Your task to perform on an android device: open app "Google Home" Image 0: 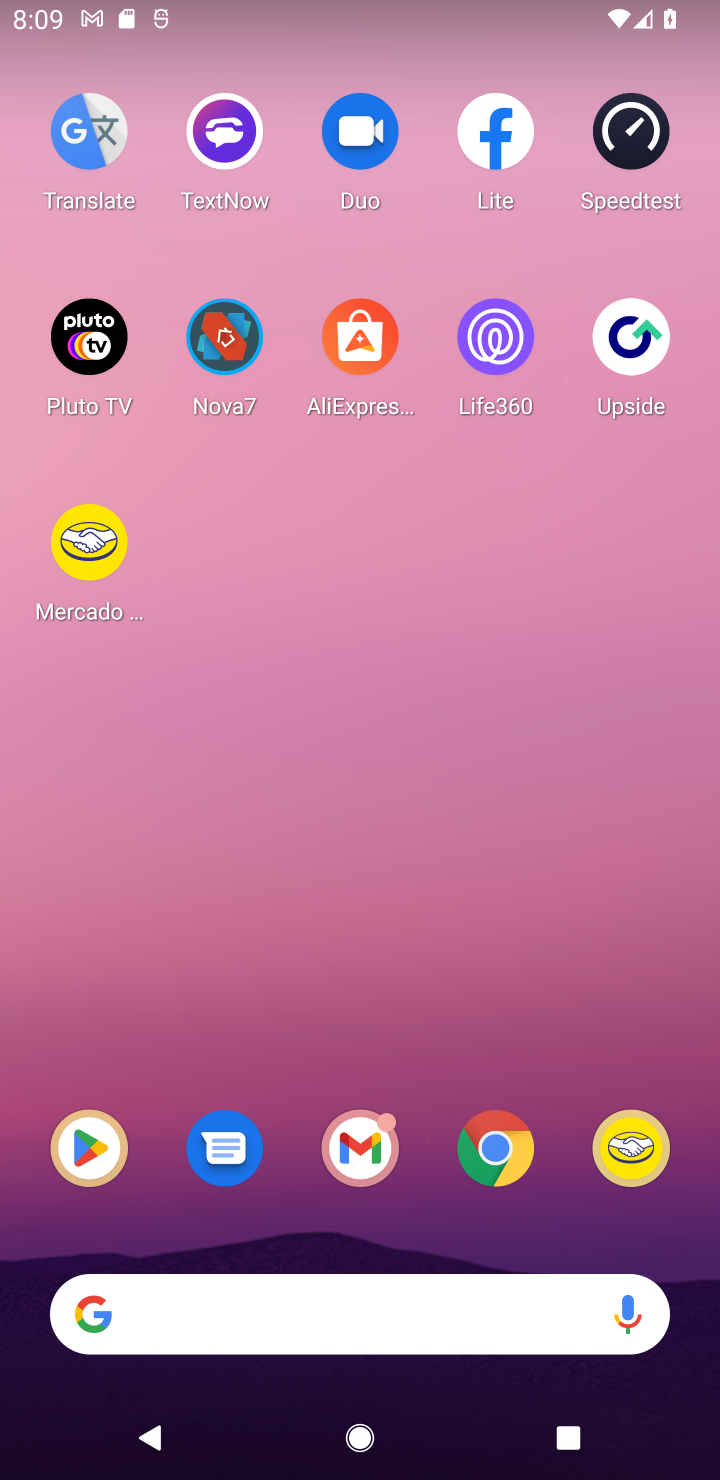
Step 0: drag from (445, 765) to (308, 128)
Your task to perform on an android device: open app "Google Home" Image 1: 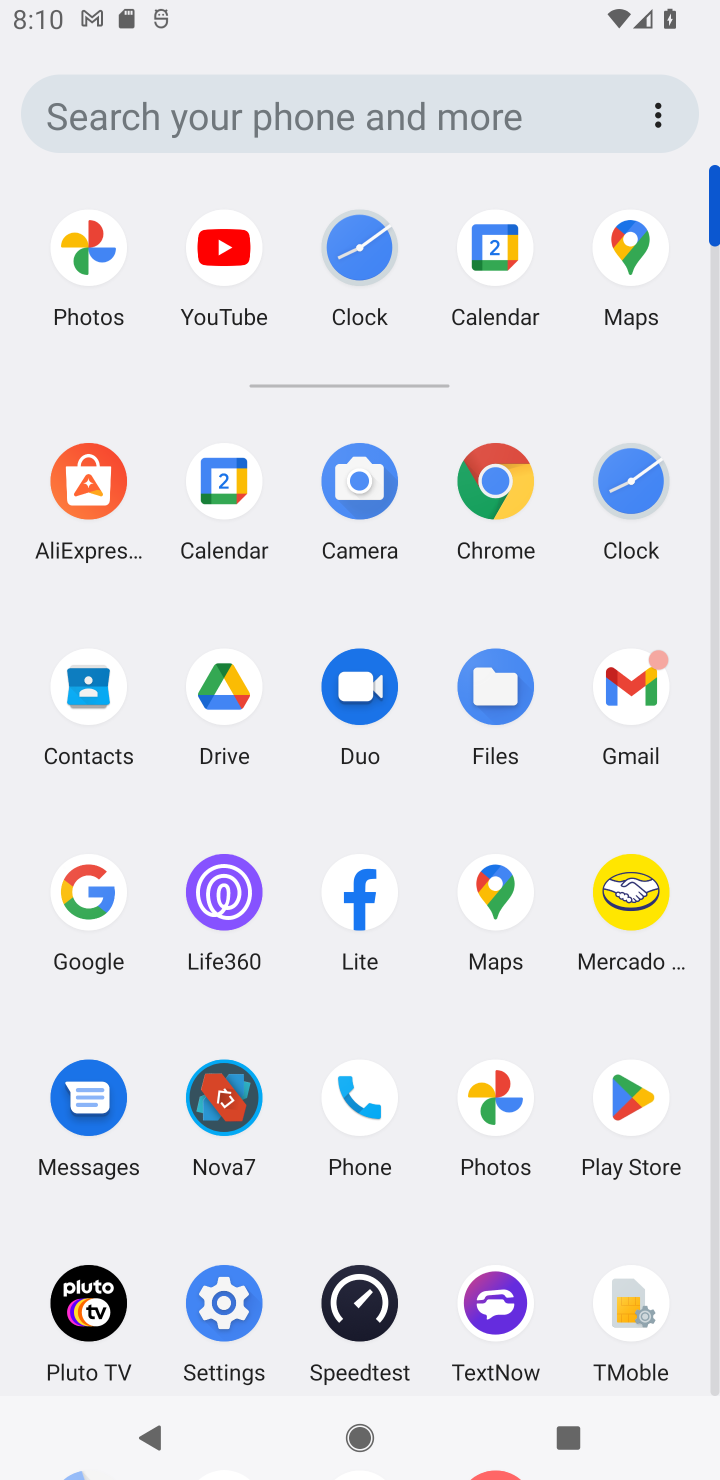
Step 1: click (626, 1100)
Your task to perform on an android device: open app "Google Home" Image 2: 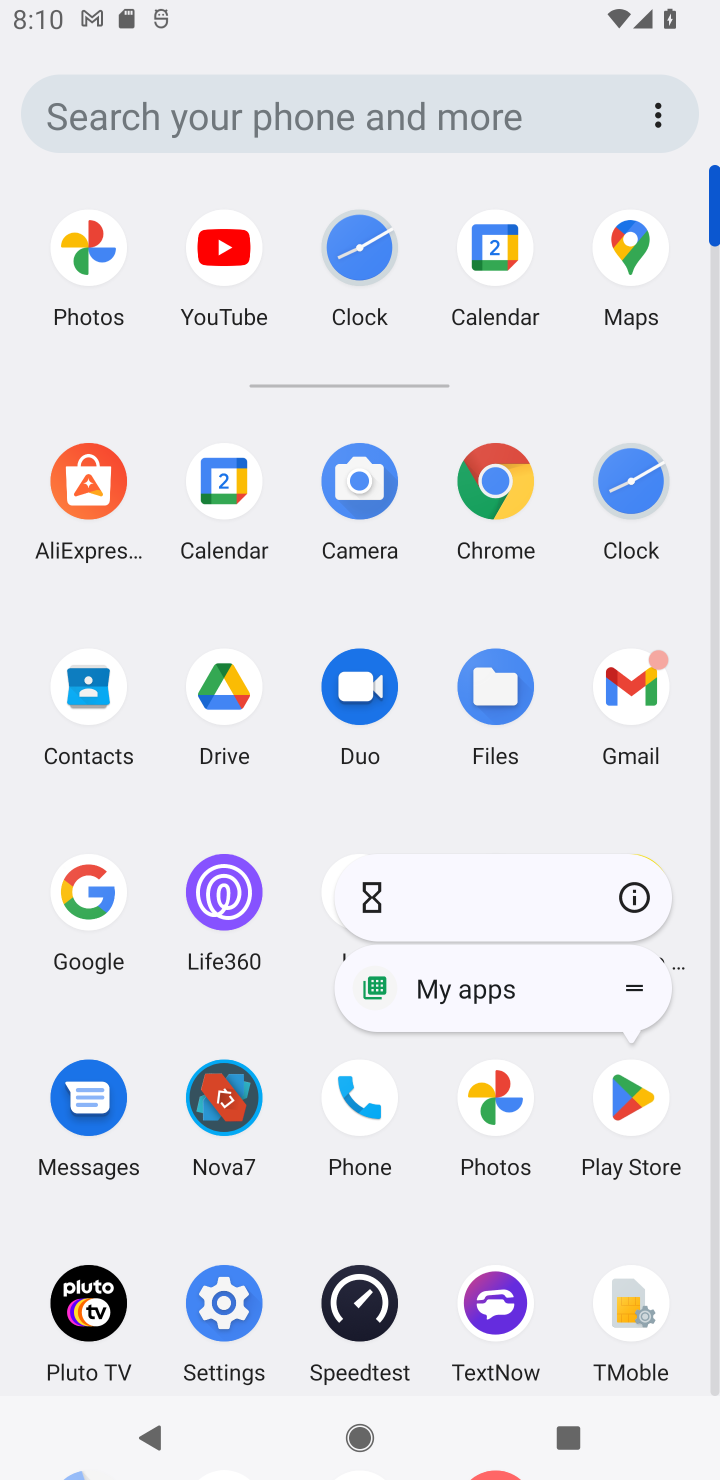
Step 2: click (612, 1103)
Your task to perform on an android device: open app "Google Home" Image 3: 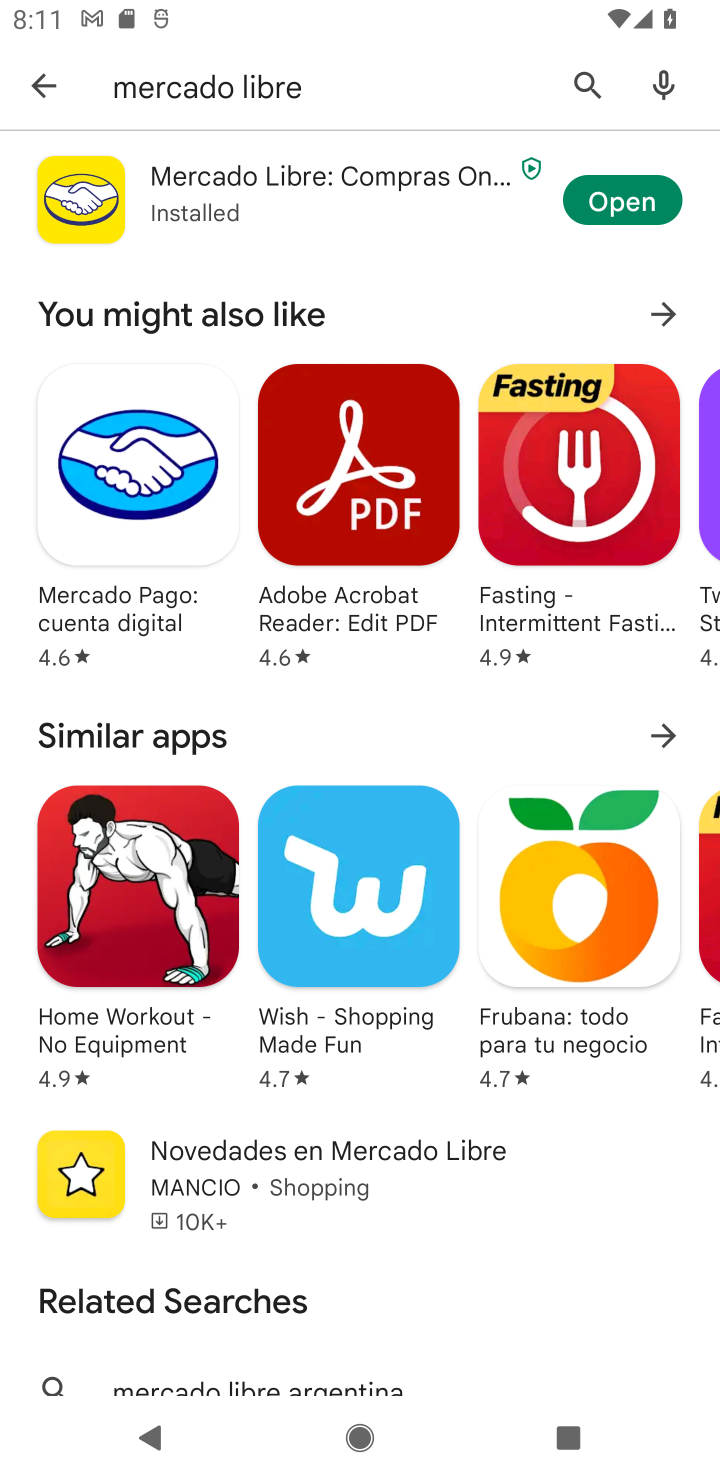
Step 3: press back button
Your task to perform on an android device: open app "Google Home" Image 4: 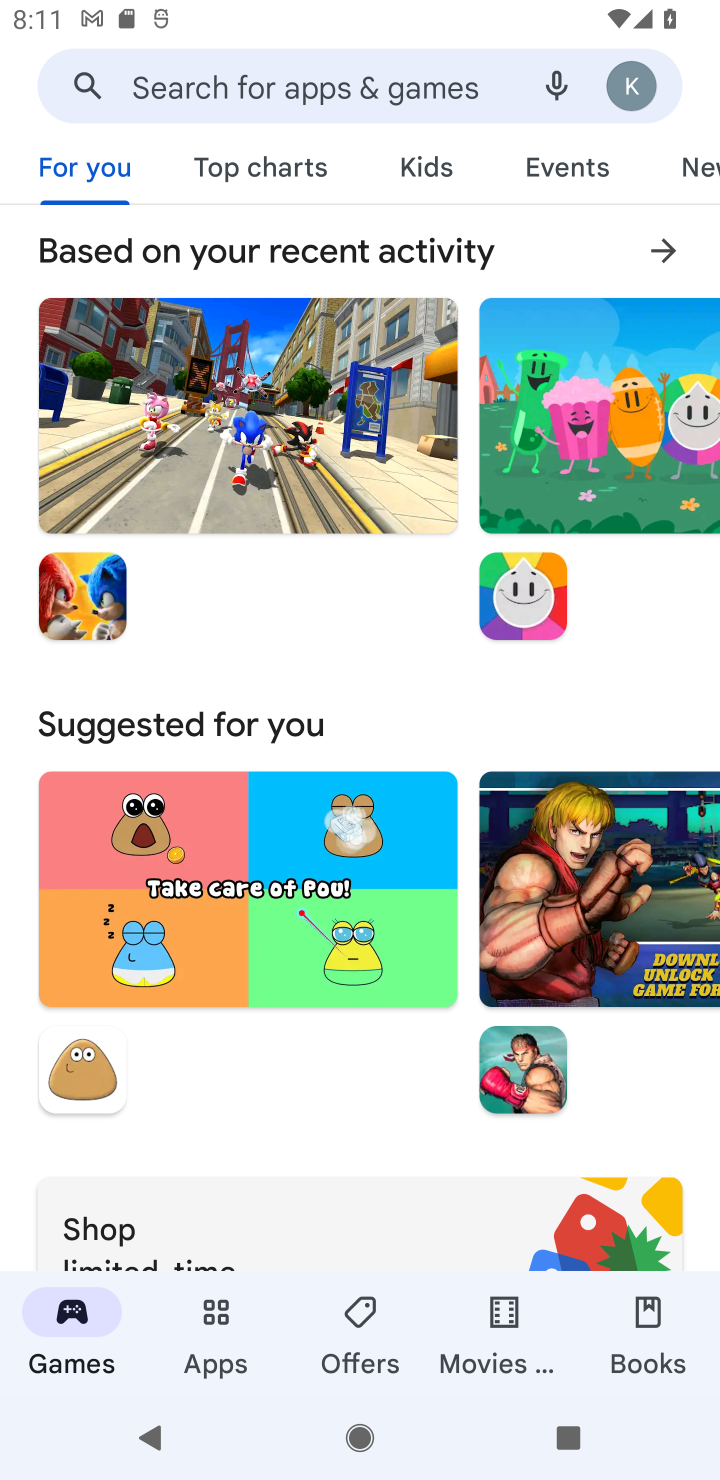
Step 4: click (200, 103)
Your task to perform on an android device: open app "Google Home" Image 5: 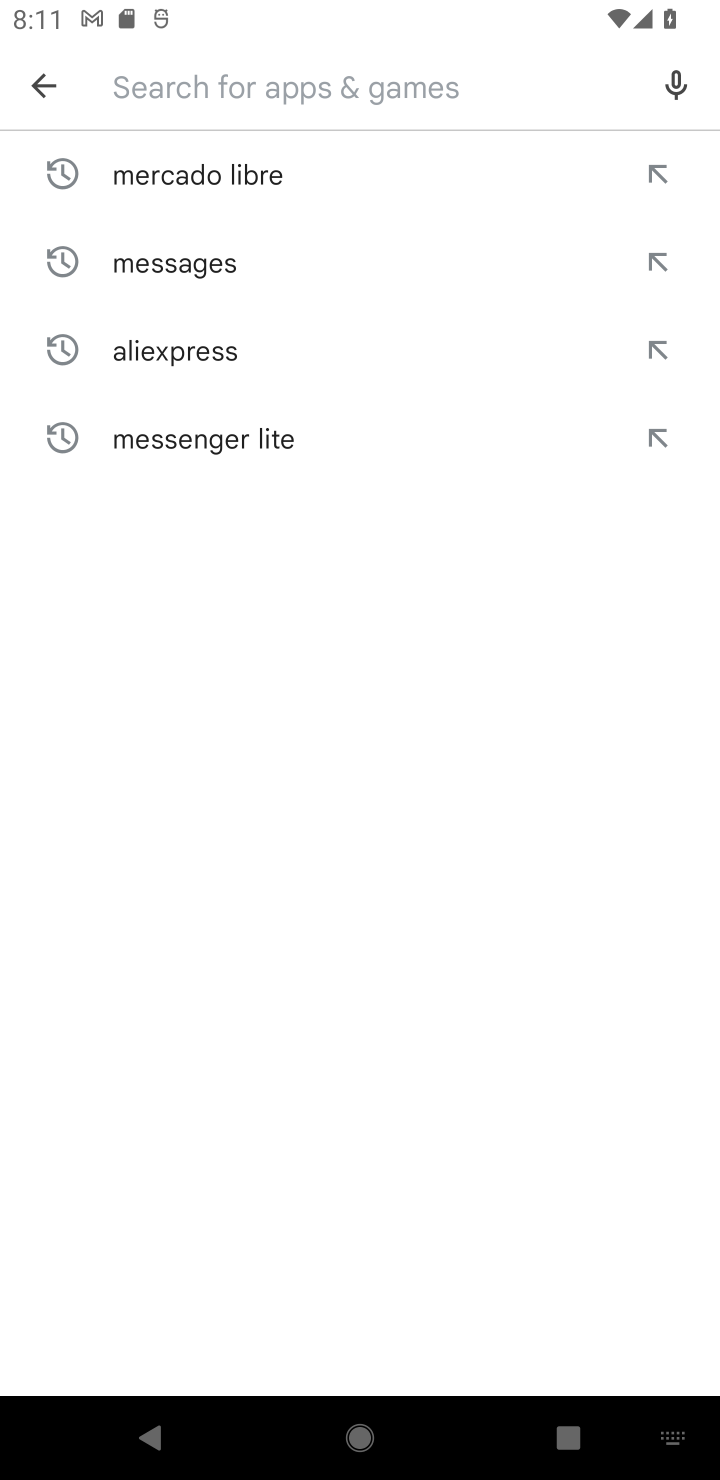
Step 5: type "Google Home"
Your task to perform on an android device: open app "Google Home" Image 6: 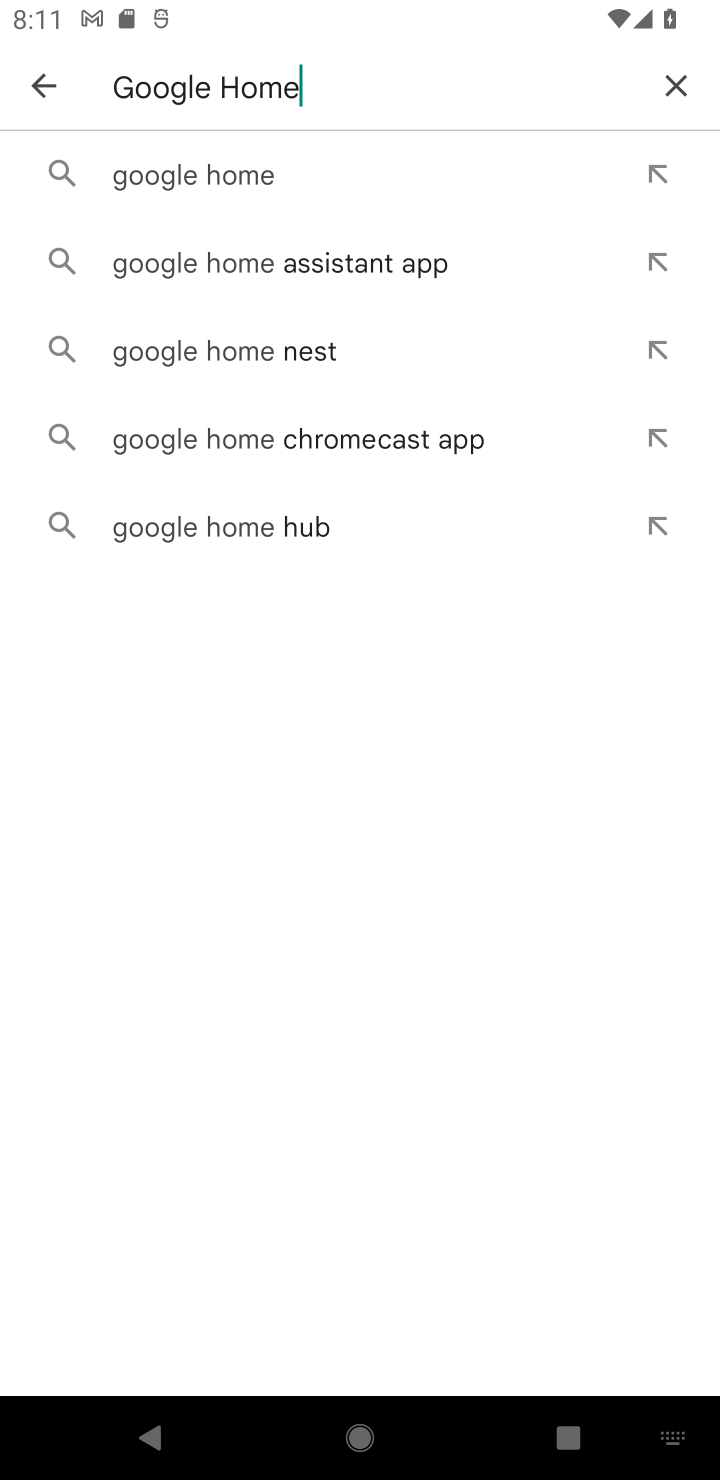
Step 6: click (230, 179)
Your task to perform on an android device: open app "Google Home" Image 7: 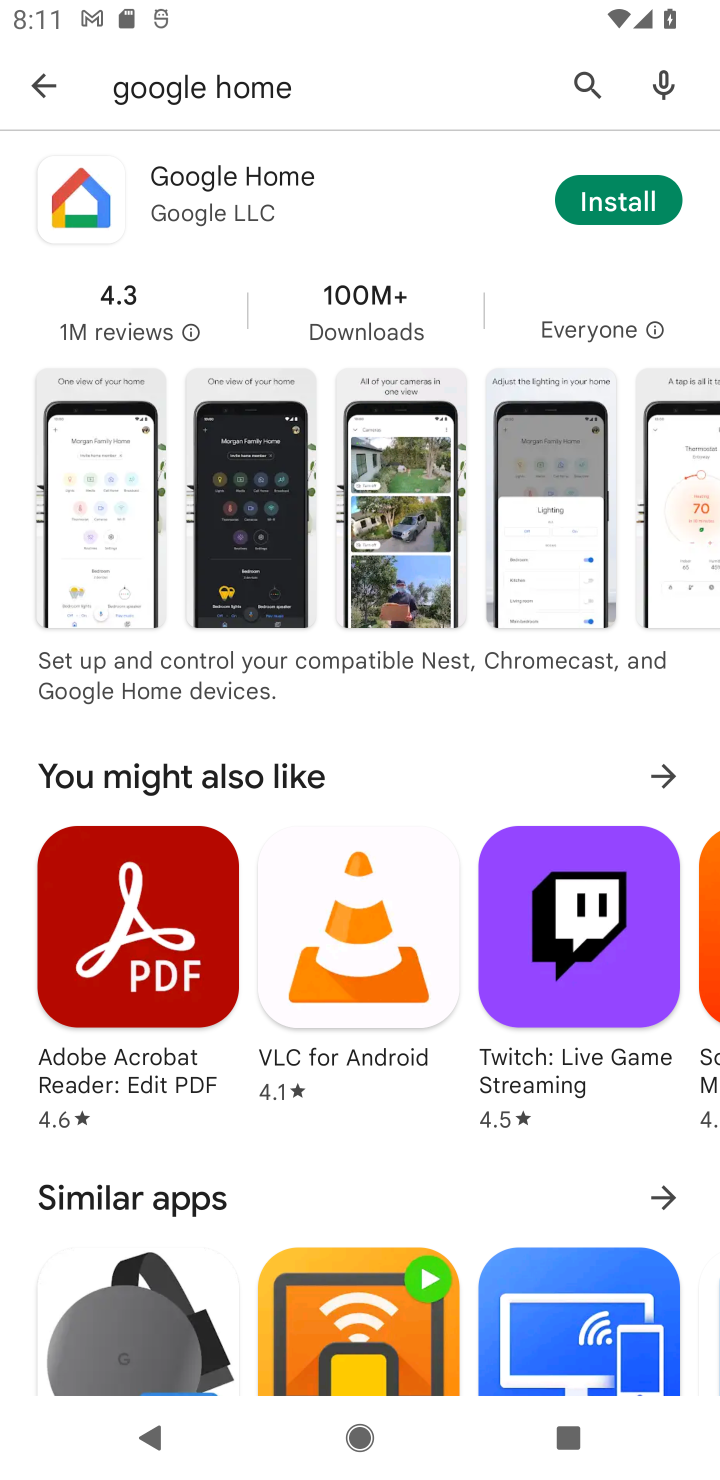
Step 7: task complete